Your task to perform on an android device: empty trash in google photos Image 0: 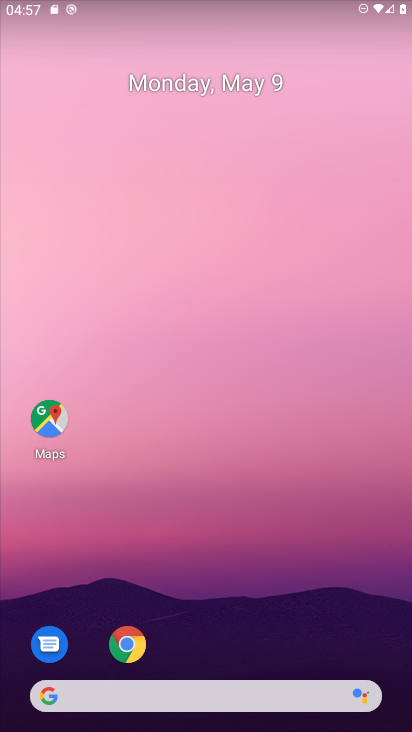
Step 0: drag from (218, 609) to (227, 9)
Your task to perform on an android device: empty trash in google photos Image 1: 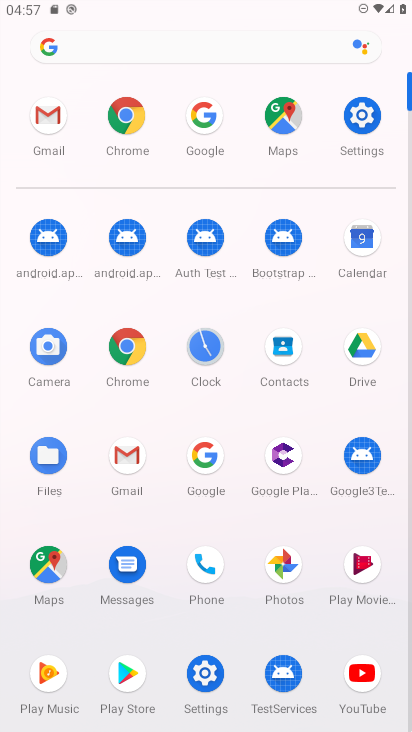
Step 1: click (283, 563)
Your task to perform on an android device: empty trash in google photos Image 2: 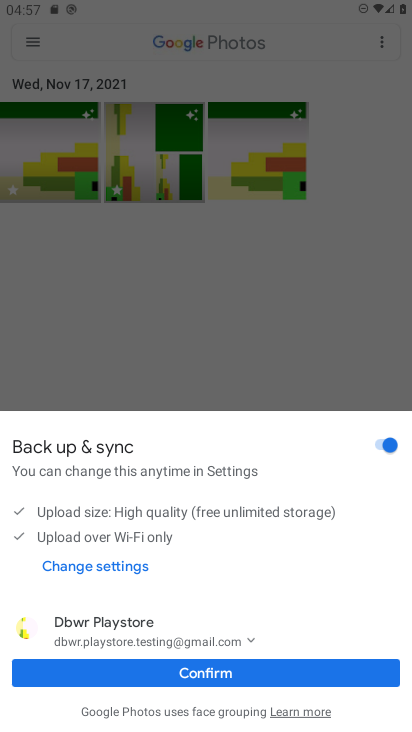
Step 2: click (225, 673)
Your task to perform on an android device: empty trash in google photos Image 3: 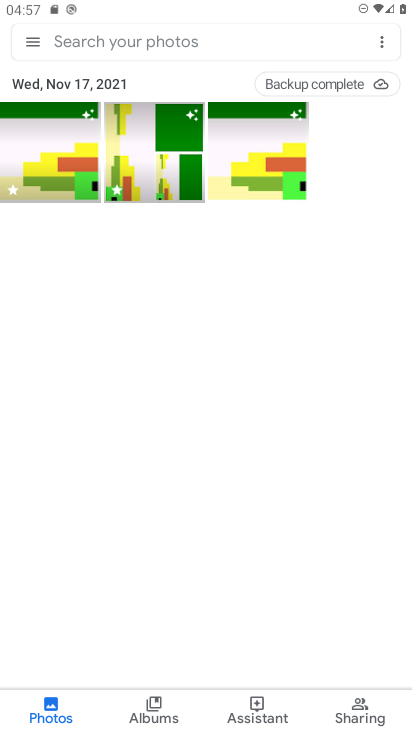
Step 3: click (30, 41)
Your task to perform on an android device: empty trash in google photos Image 4: 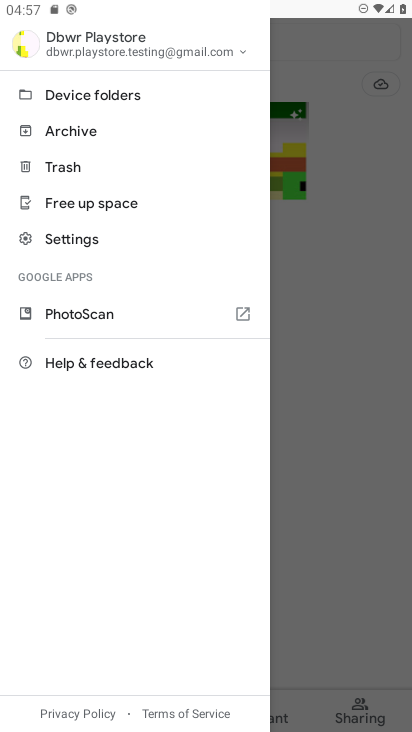
Step 4: click (68, 171)
Your task to perform on an android device: empty trash in google photos Image 5: 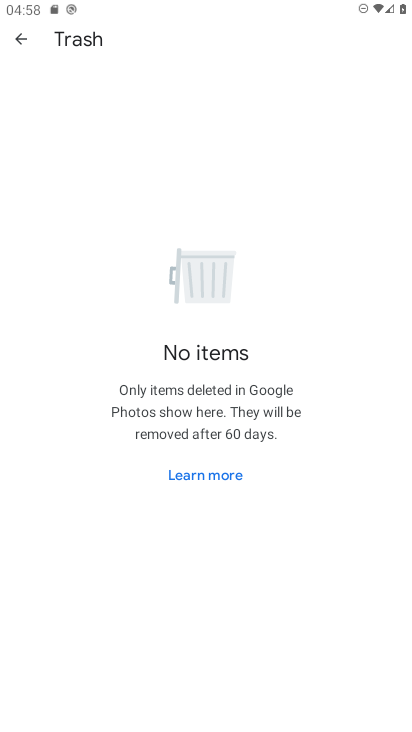
Step 5: task complete